Your task to perform on an android device: Open Google Chrome and open the bookmarks view Image 0: 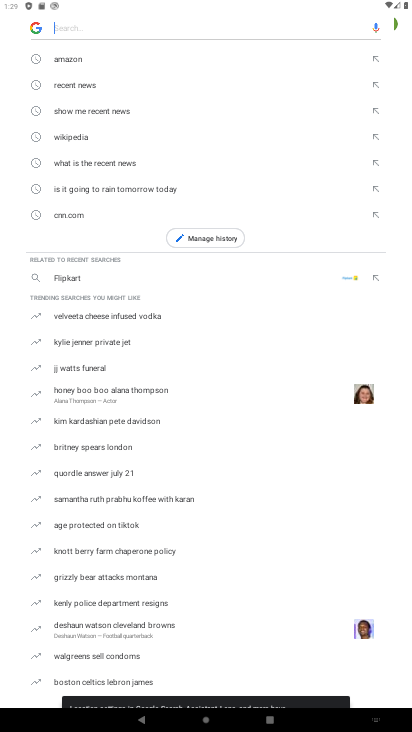
Step 0: press home button
Your task to perform on an android device: Open Google Chrome and open the bookmarks view Image 1: 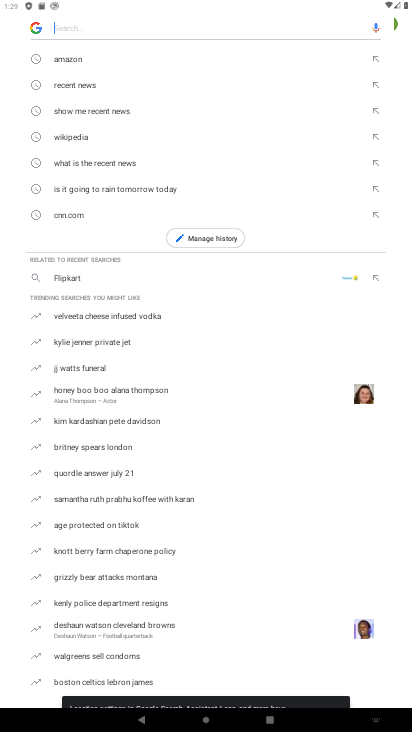
Step 1: press home button
Your task to perform on an android device: Open Google Chrome and open the bookmarks view Image 2: 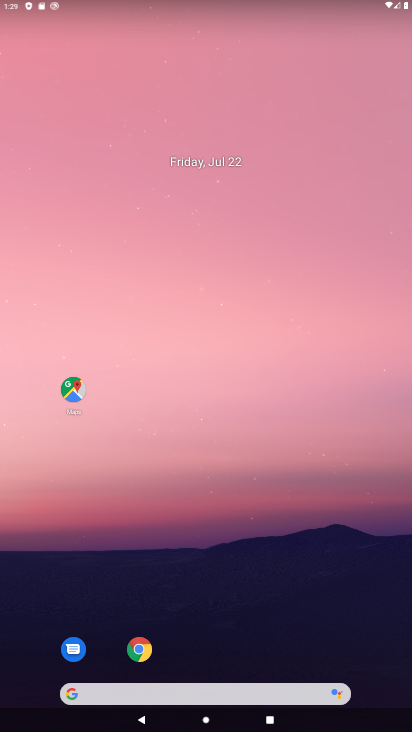
Step 2: click (136, 644)
Your task to perform on an android device: Open Google Chrome and open the bookmarks view Image 3: 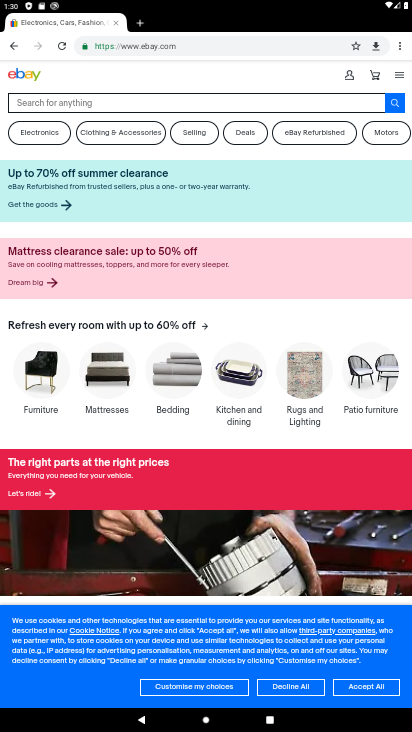
Step 3: click (397, 49)
Your task to perform on an android device: Open Google Chrome and open the bookmarks view Image 4: 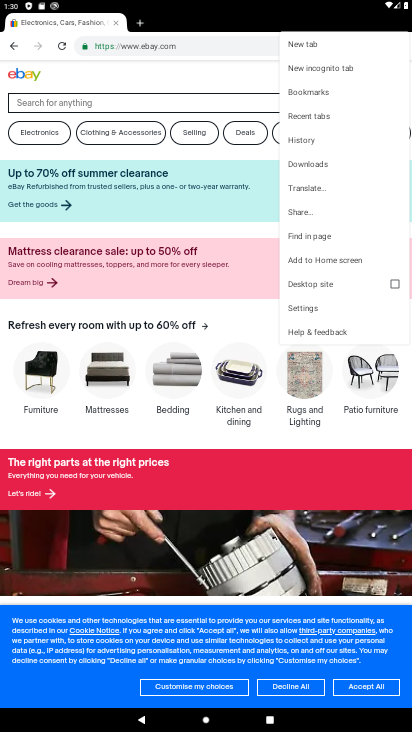
Step 4: click (310, 91)
Your task to perform on an android device: Open Google Chrome and open the bookmarks view Image 5: 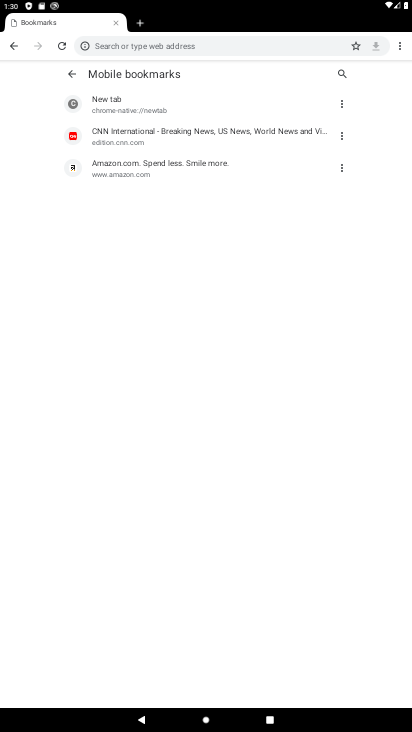
Step 5: task complete